Your task to perform on an android device: turn on priority inbox in the gmail app Image 0: 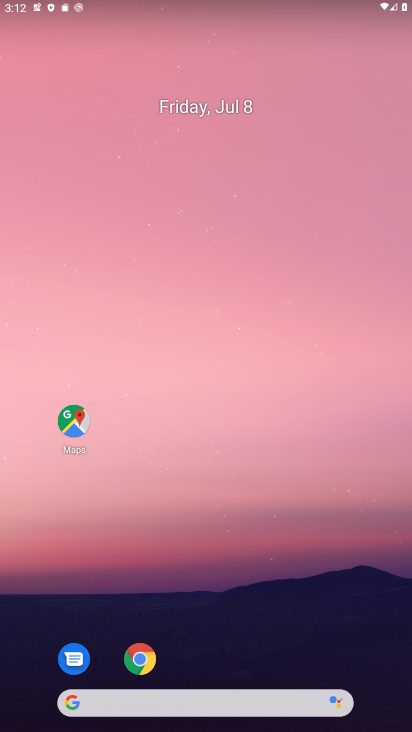
Step 0: drag from (214, 669) to (211, 143)
Your task to perform on an android device: turn on priority inbox in the gmail app Image 1: 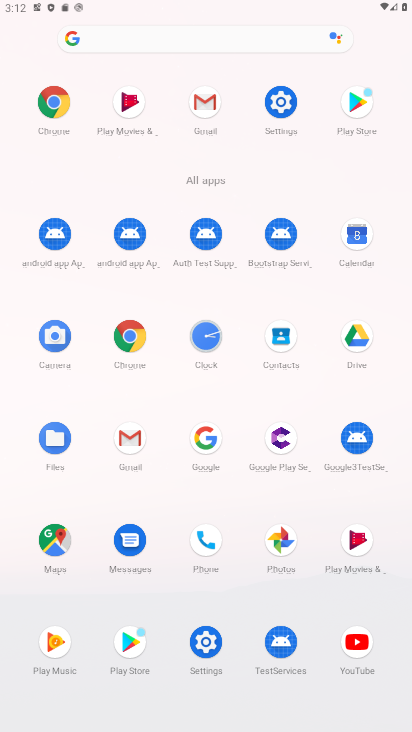
Step 1: click (211, 129)
Your task to perform on an android device: turn on priority inbox in the gmail app Image 2: 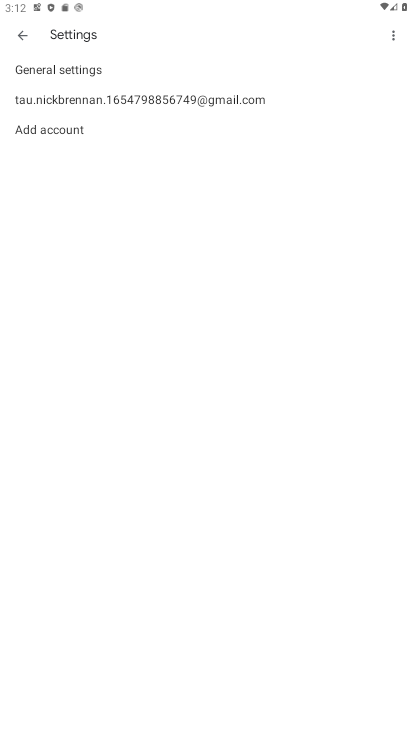
Step 2: click (23, 35)
Your task to perform on an android device: turn on priority inbox in the gmail app Image 3: 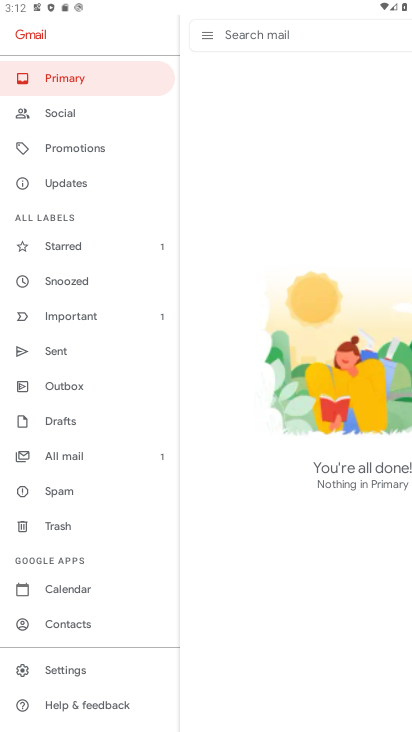
Step 3: click (84, 671)
Your task to perform on an android device: turn on priority inbox in the gmail app Image 4: 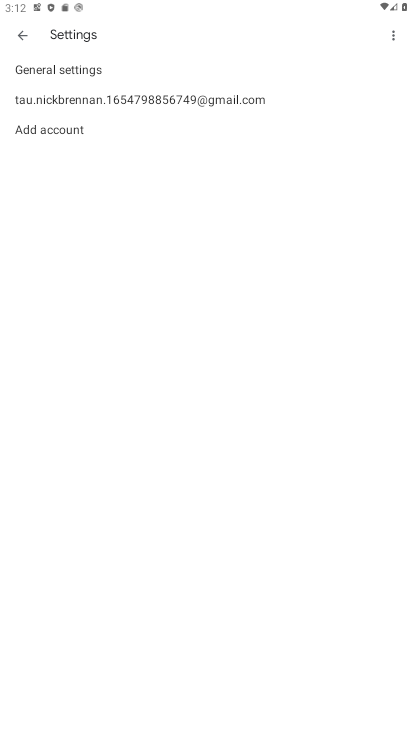
Step 4: click (117, 105)
Your task to perform on an android device: turn on priority inbox in the gmail app Image 5: 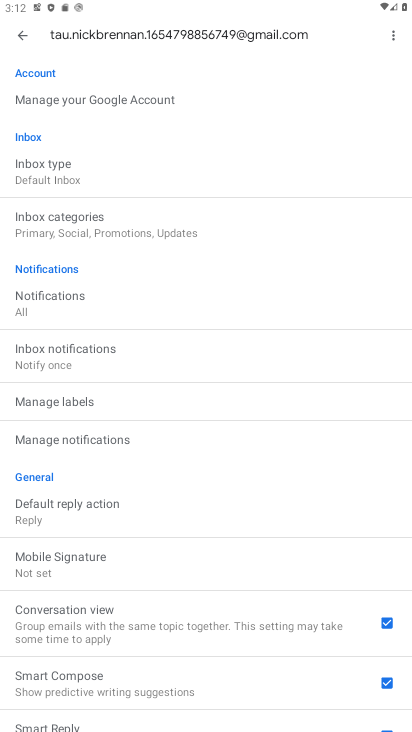
Step 5: click (104, 184)
Your task to perform on an android device: turn on priority inbox in the gmail app Image 6: 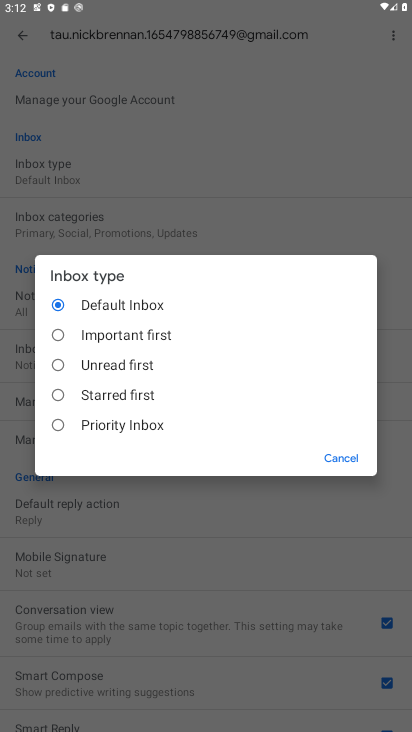
Step 6: click (81, 425)
Your task to perform on an android device: turn on priority inbox in the gmail app Image 7: 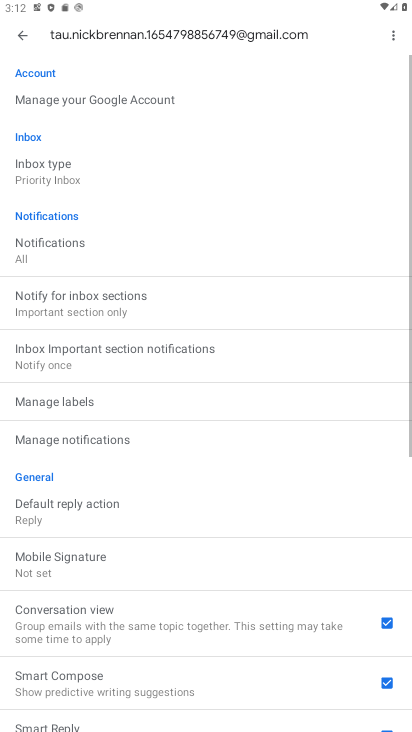
Step 7: task complete